Your task to perform on an android device: create a new album in the google photos Image 0: 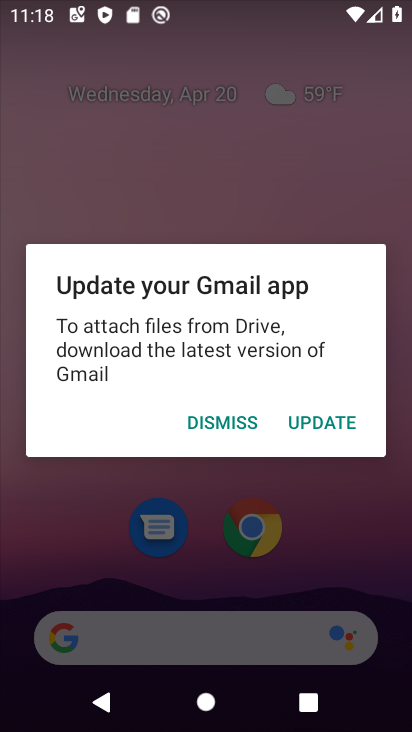
Step 0: press home button
Your task to perform on an android device: create a new album in the google photos Image 1: 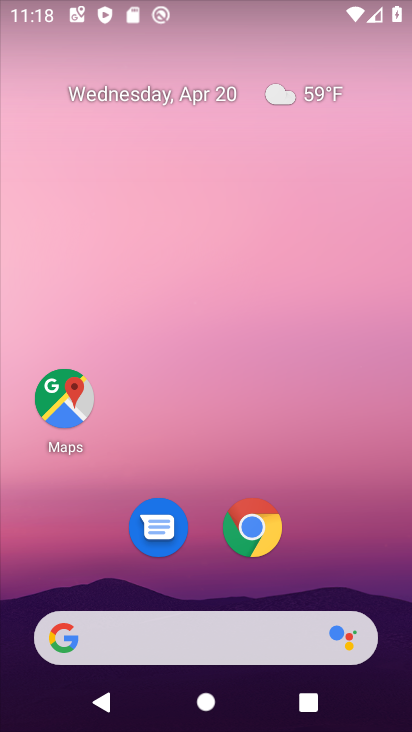
Step 1: drag from (372, 550) to (364, 157)
Your task to perform on an android device: create a new album in the google photos Image 2: 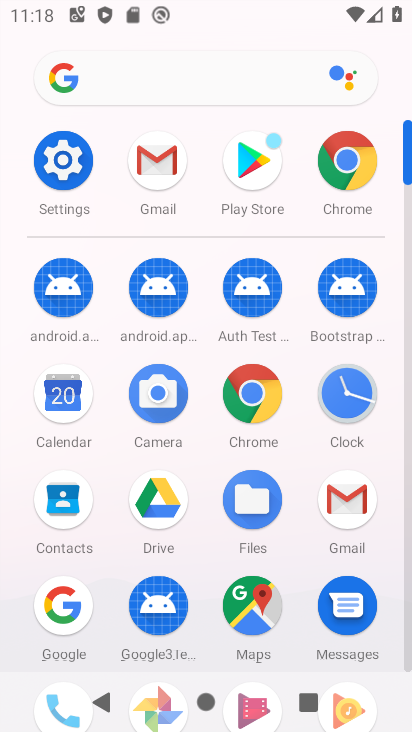
Step 2: drag from (201, 618) to (217, 302)
Your task to perform on an android device: create a new album in the google photos Image 3: 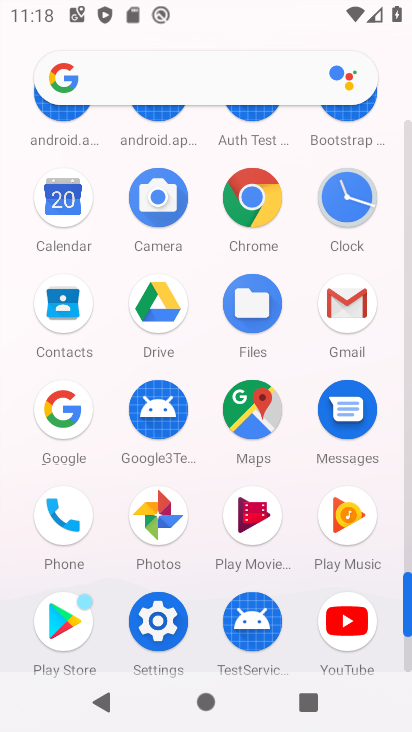
Step 3: click (169, 511)
Your task to perform on an android device: create a new album in the google photos Image 4: 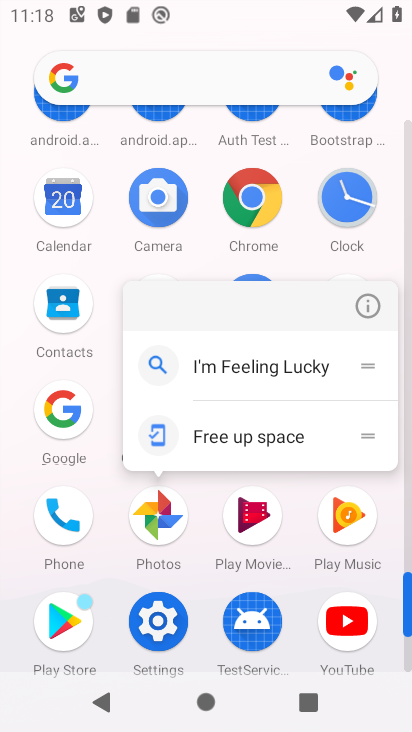
Step 4: click (169, 511)
Your task to perform on an android device: create a new album in the google photos Image 5: 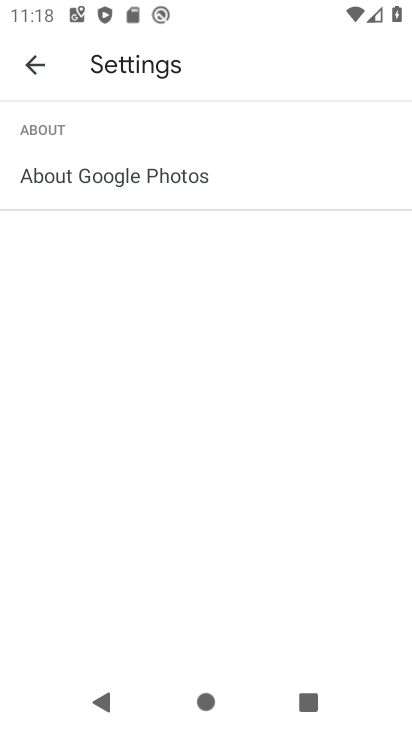
Step 5: click (40, 74)
Your task to perform on an android device: create a new album in the google photos Image 6: 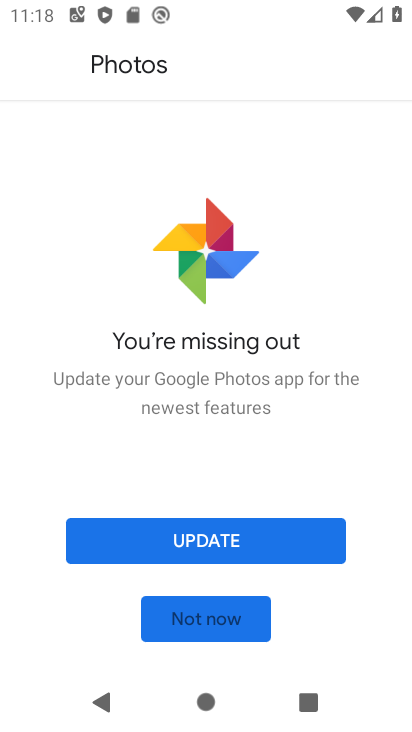
Step 6: click (230, 539)
Your task to perform on an android device: create a new album in the google photos Image 7: 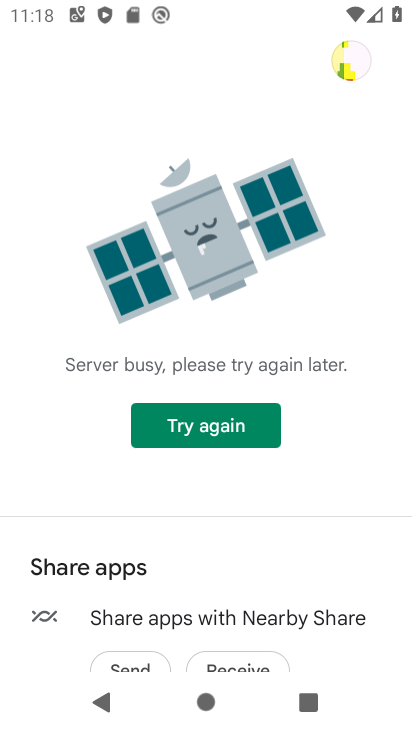
Step 7: task complete